Your task to perform on an android device: Open calendar and show me the first week of next month Image 0: 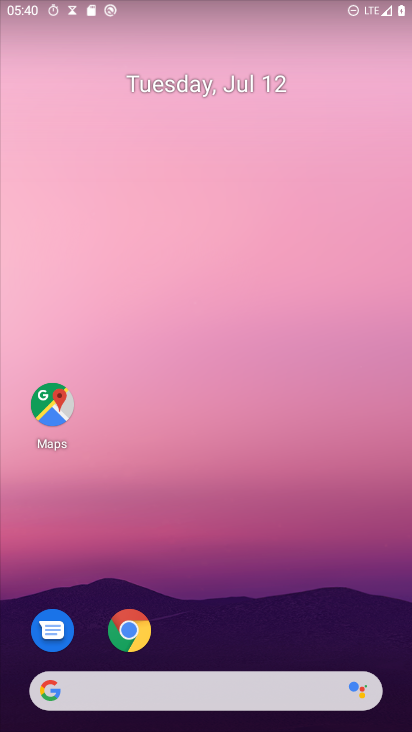
Step 0: drag from (299, 571) to (302, 84)
Your task to perform on an android device: Open calendar and show me the first week of next month Image 1: 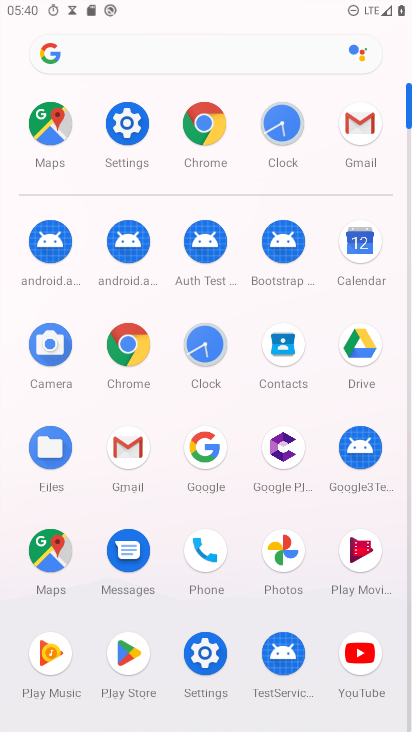
Step 1: click (363, 249)
Your task to perform on an android device: Open calendar and show me the first week of next month Image 2: 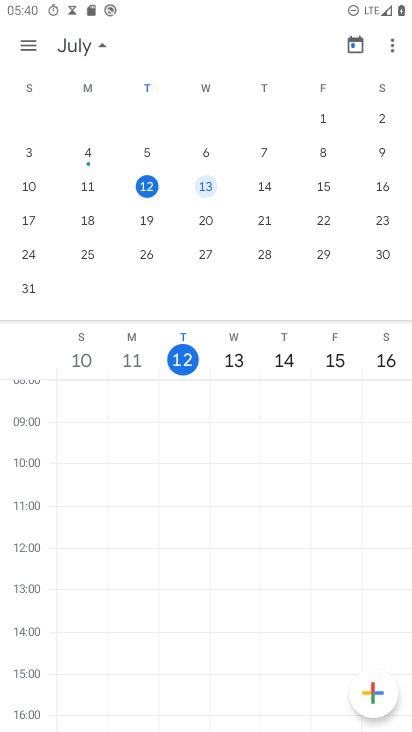
Step 2: drag from (385, 196) to (12, 232)
Your task to perform on an android device: Open calendar and show me the first week of next month Image 3: 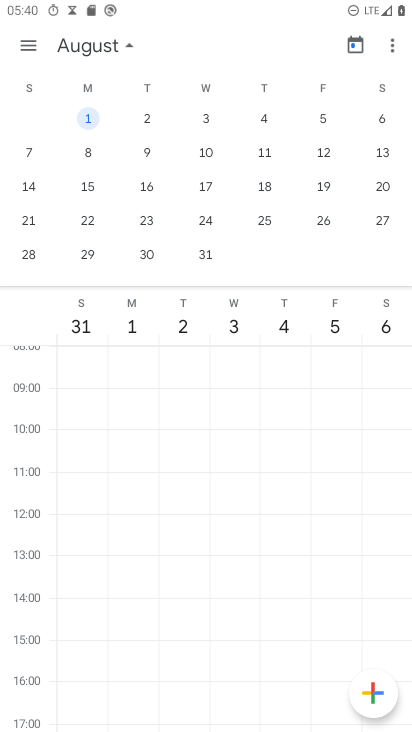
Step 3: click (254, 116)
Your task to perform on an android device: Open calendar and show me the first week of next month Image 4: 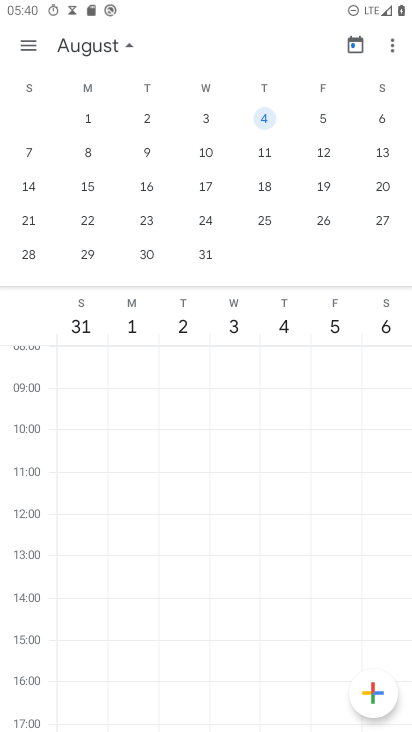
Step 4: task complete